Your task to perform on an android device: turn off sleep mode Image 0: 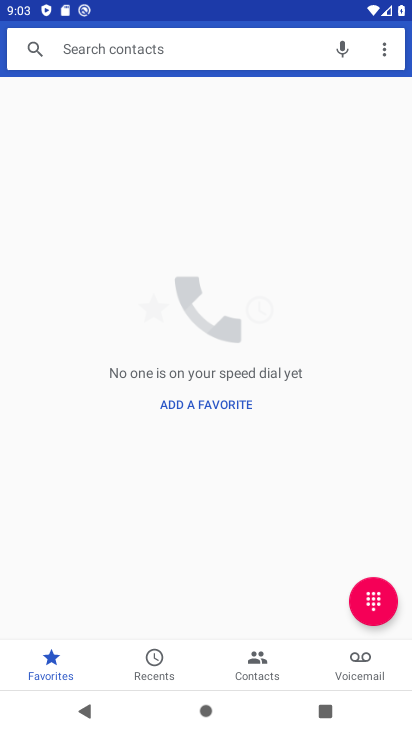
Step 0: press home button
Your task to perform on an android device: turn off sleep mode Image 1: 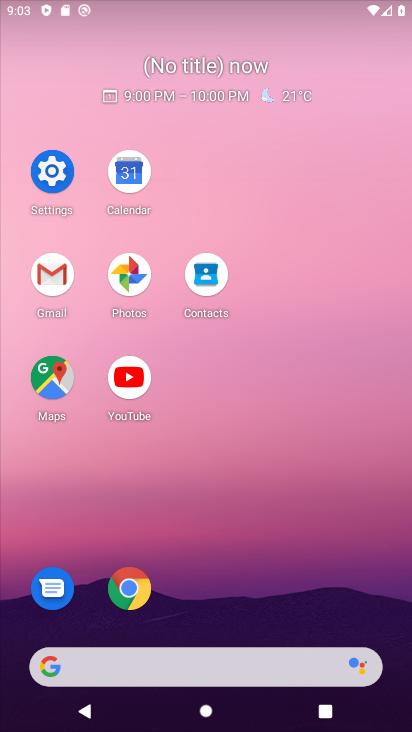
Step 1: click (51, 169)
Your task to perform on an android device: turn off sleep mode Image 2: 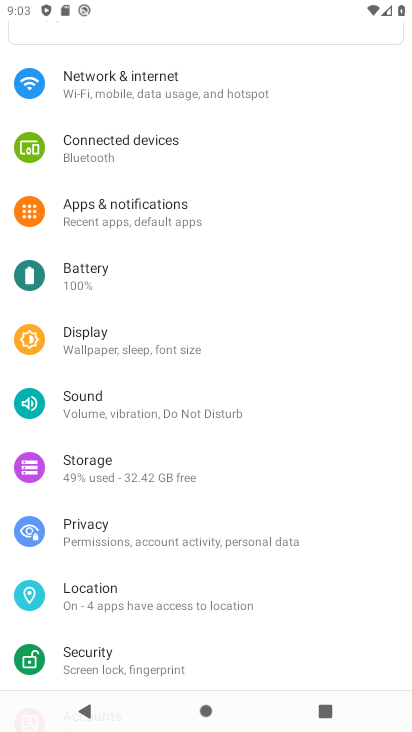
Step 2: click (150, 346)
Your task to perform on an android device: turn off sleep mode Image 3: 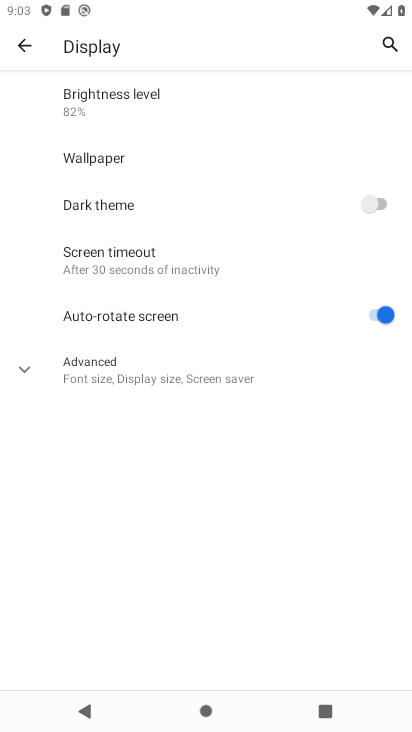
Step 3: click (180, 270)
Your task to perform on an android device: turn off sleep mode Image 4: 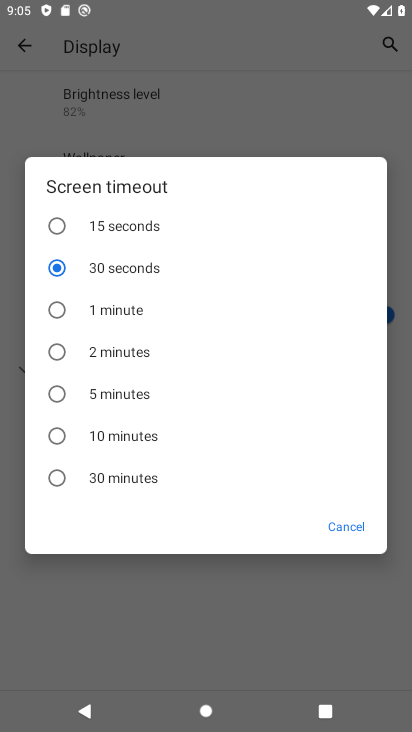
Step 4: task complete